Your task to perform on an android device: Go to ESPN.com Image 0: 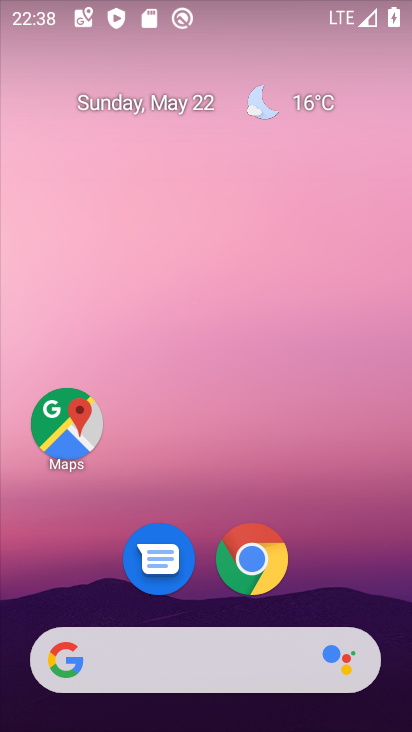
Step 0: drag from (208, 702) to (320, 271)
Your task to perform on an android device: Go to ESPN.com Image 1: 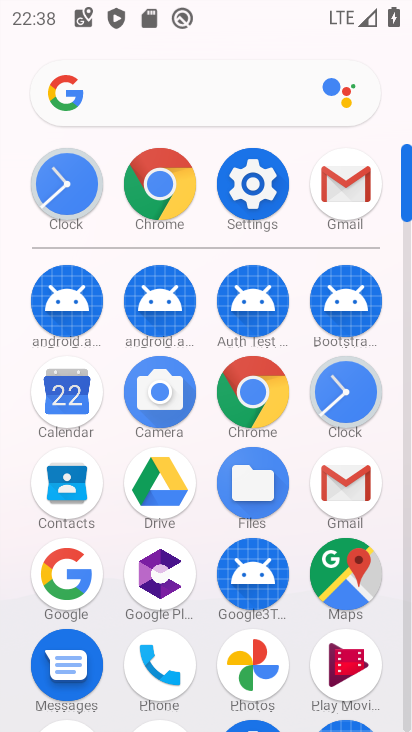
Step 1: click (192, 177)
Your task to perform on an android device: Go to ESPN.com Image 2: 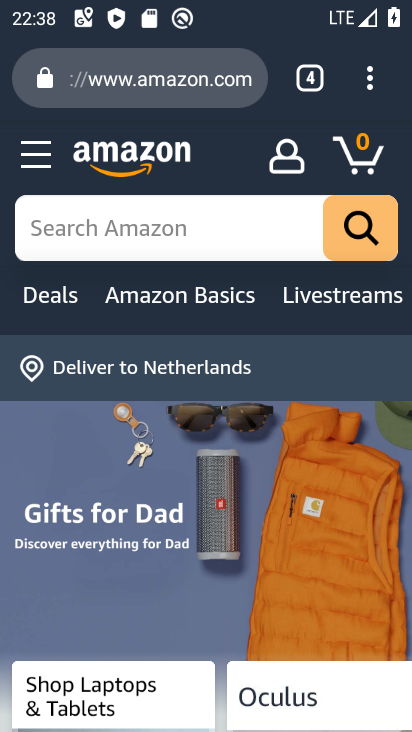
Step 2: click (170, 96)
Your task to perform on an android device: Go to ESPN.com Image 3: 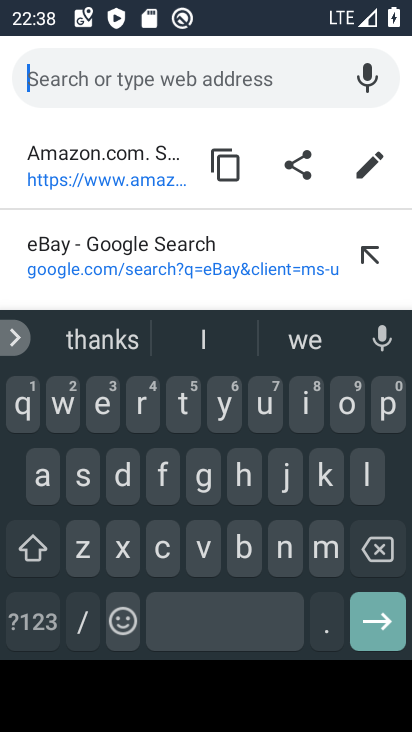
Step 3: click (98, 398)
Your task to perform on an android device: Go to ESPN.com Image 4: 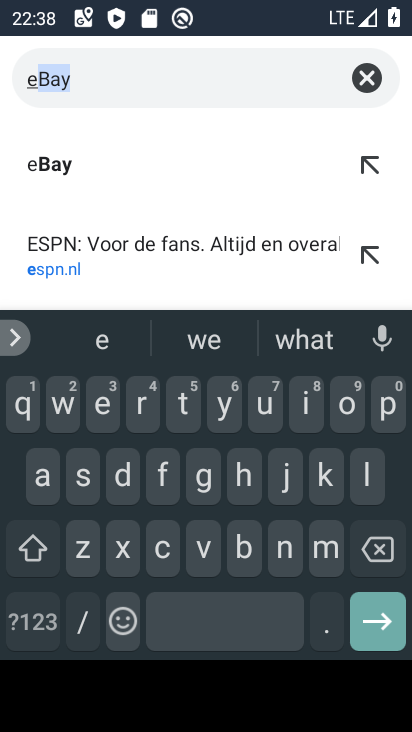
Step 4: click (84, 474)
Your task to perform on an android device: Go to ESPN.com Image 5: 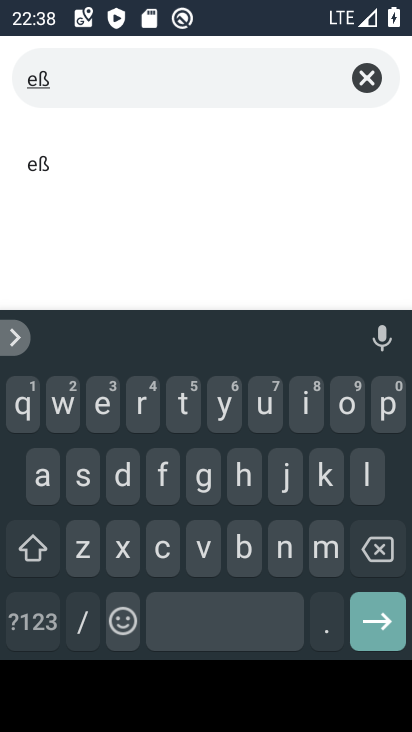
Step 5: click (372, 541)
Your task to perform on an android device: Go to ESPN.com Image 6: 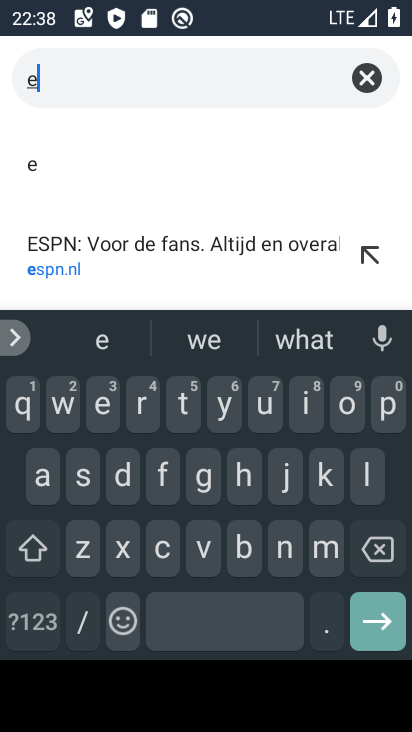
Step 6: click (140, 265)
Your task to perform on an android device: Go to ESPN.com Image 7: 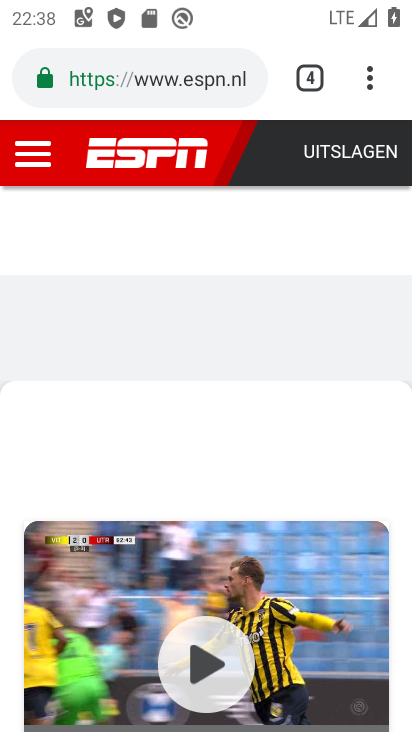
Step 7: task complete